Your task to perform on an android device: toggle location history Image 0: 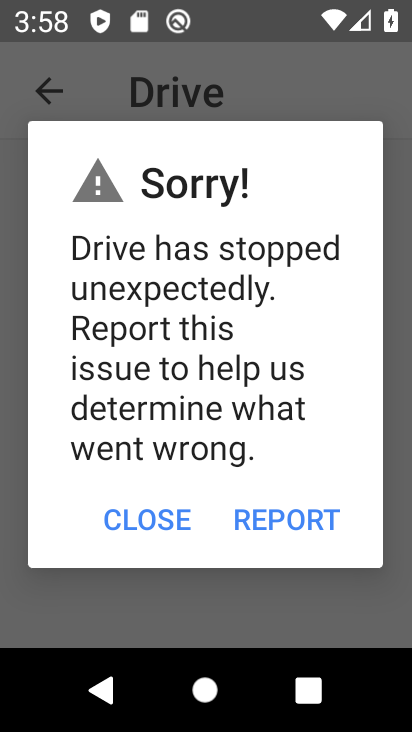
Step 0: click (163, 520)
Your task to perform on an android device: toggle location history Image 1: 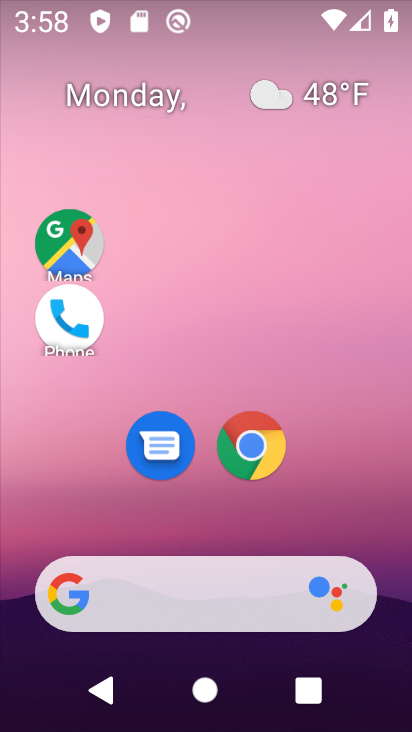
Step 1: drag from (215, 512) to (206, 99)
Your task to perform on an android device: toggle location history Image 2: 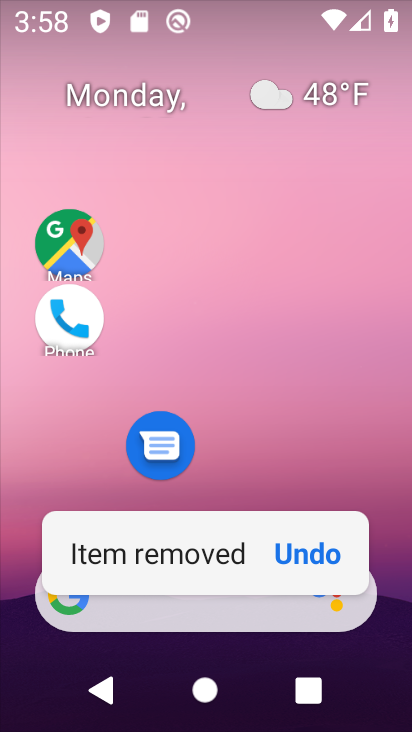
Step 2: click (291, 560)
Your task to perform on an android device: toggle location history Image 3: 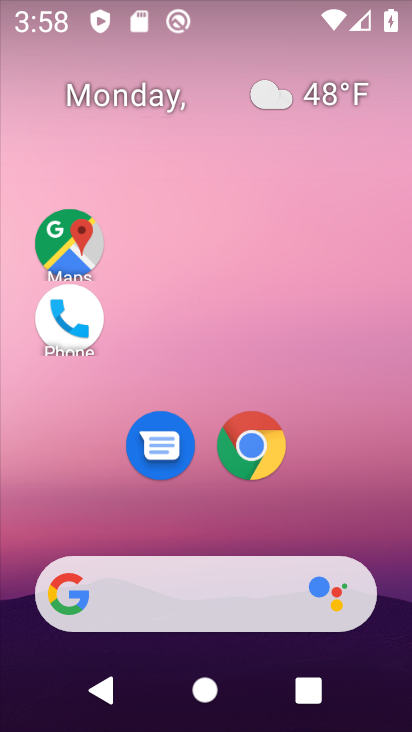
Step 3: drag from (344, 505) to (260, 84)
Your task to perform on an android device: toggle location history Image 4: 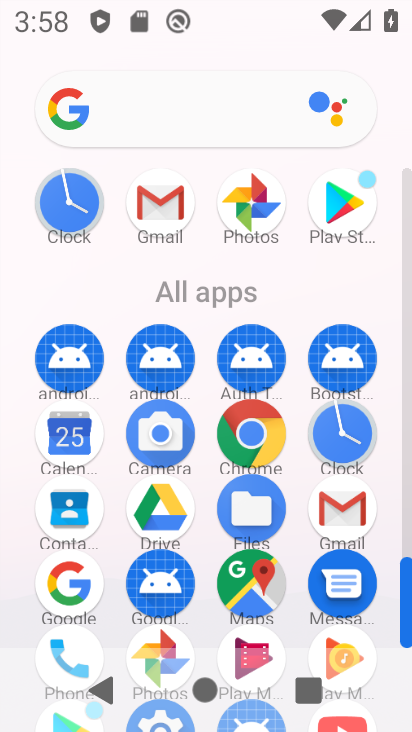
Step 4: drag from (203, 621) to (196, 296)
Your task to perform on an android device: toggle location history Image 5: 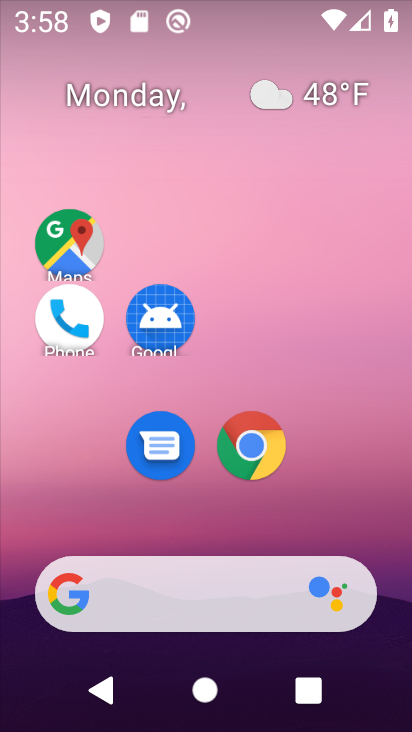
Step 5: drag from (331, 491) to (243, 35)
Your task to perform on an android device: toggle location history Image 6: 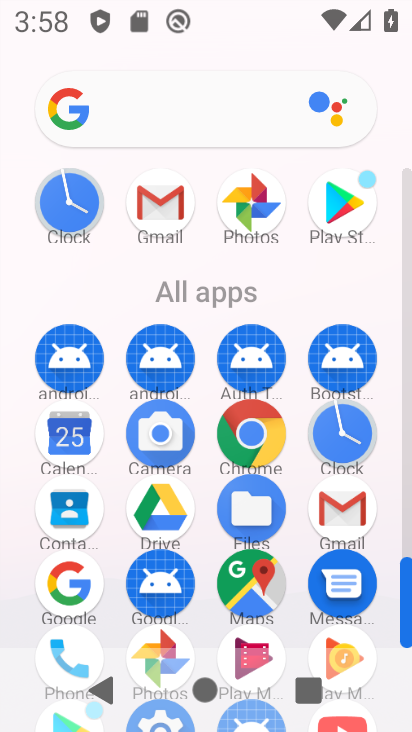
Step 6: drag from (289, 319) to (273, 111)
Your task to perform on an android device: toggle location history Image 7: 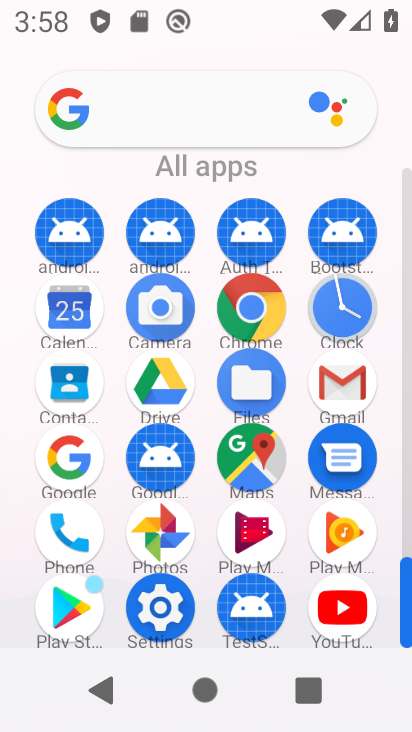
Step 7: click (162, 599)
Your task to perform on an android device: toggle location history Image 8: 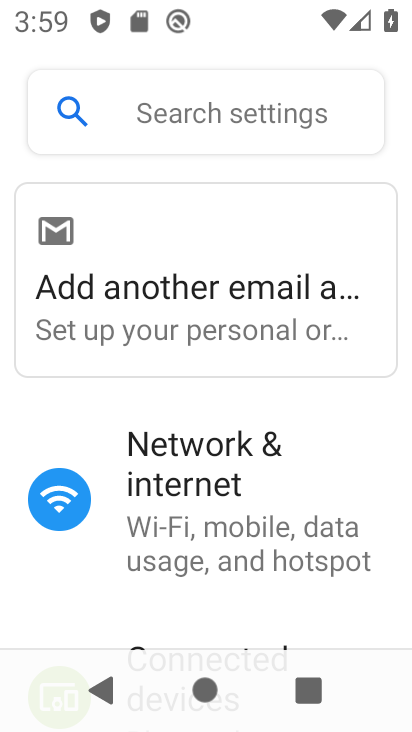
Step 8: drag from (231, 610) to (175, 136)
Your task to perform on an android device: toggle location history Image 9: 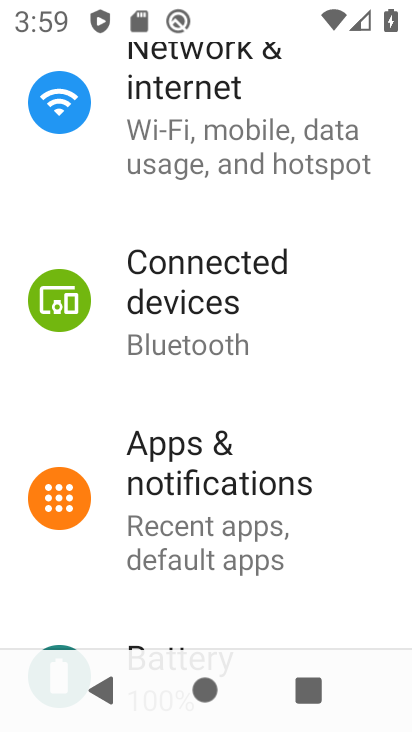
Step 9: drag from (292, 389) to (255, 113)
Your task to perform on an android device: toggle location history Image 10: 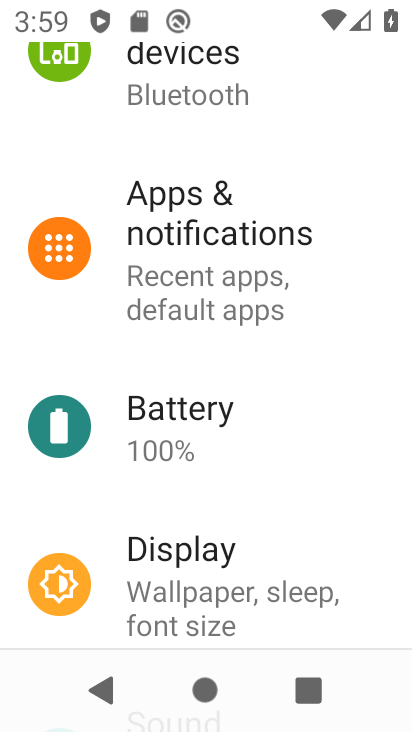
Step 10: drag from (252, 511) to (220, 239)
Your task to perform on an android device: toggle location history Image 11: 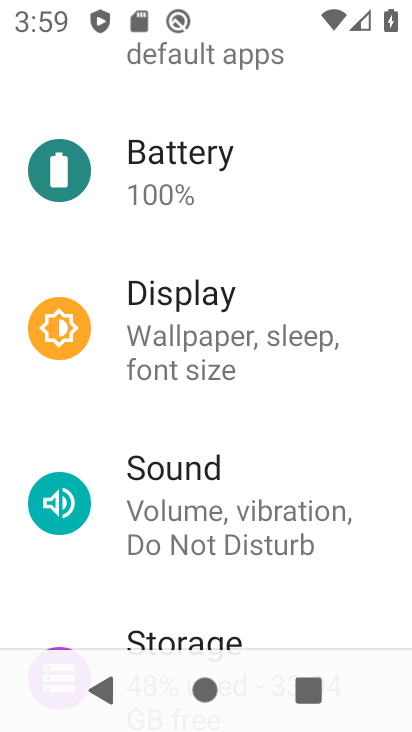
Step 11: drag from (271, 478) to (243, 220)
Your task to perform on an android device: toggle location history Image 12: 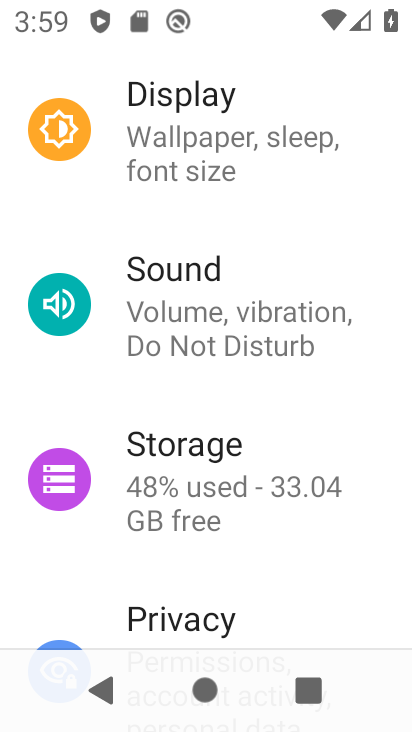
Step 12: drag from (268, 517) to (271, 111)
Your task to perform on an android device: toggle location history Image 13: 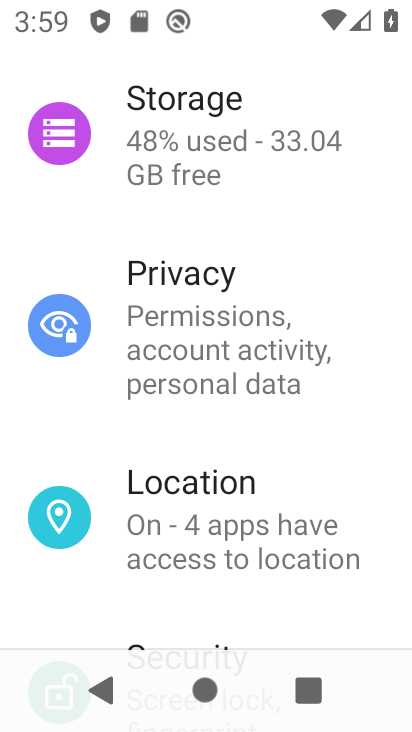
Step 13: click (212, 502)
Your task to perform on an android device: toggle location history Image 14: 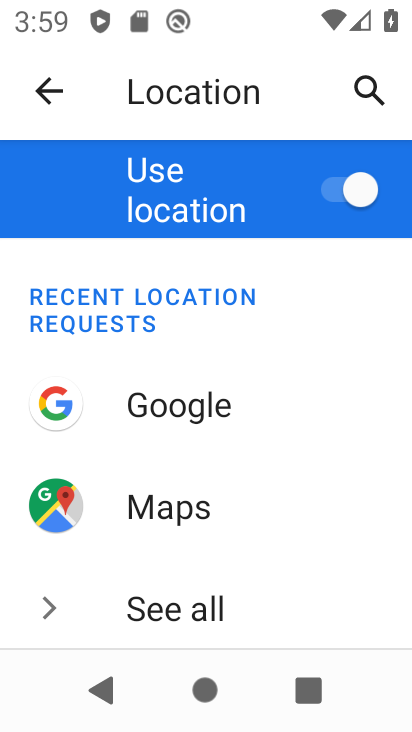
Step 14: click (362, 180)
Your task to perform on an android device: toggle location history Image 15: 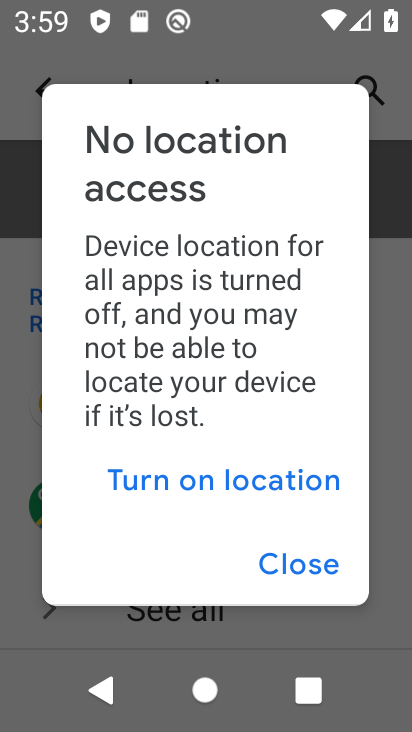
Step 15: task complete